Your task to perform on an android device: turn on airplane mode Image 0: 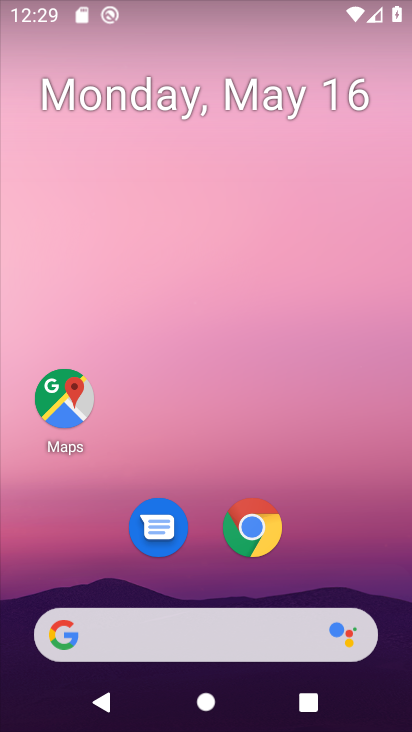
Step 0: drag from (174, 444) to (236, 47)
Your task to perform on an android device: turn on airplane mode Image 1: 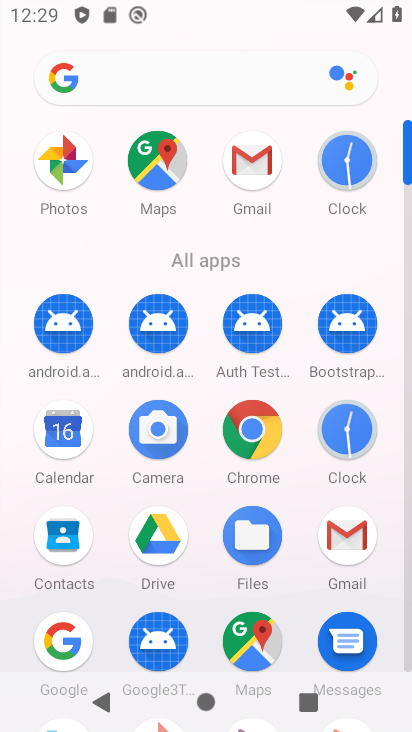
Step 1: drag from (299, 619) to (308, 279)
Your task to perform on an android device: turn on airplane mode Image 2: 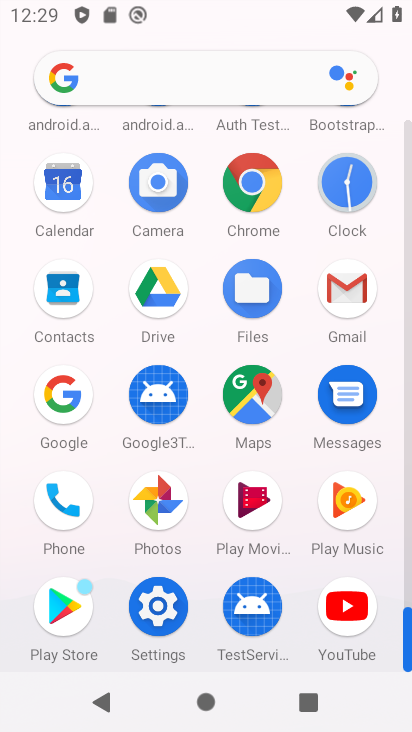
Step 2: click (154, 606)
Your task to perform on an android device: turn on airplane mode Image 3: 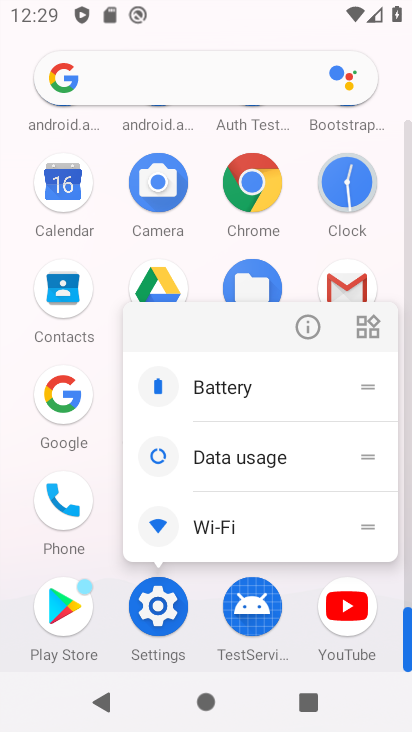
Step 3: click (152, 612)
Your task to perform on an android device: turn on airplane mode Image 4: 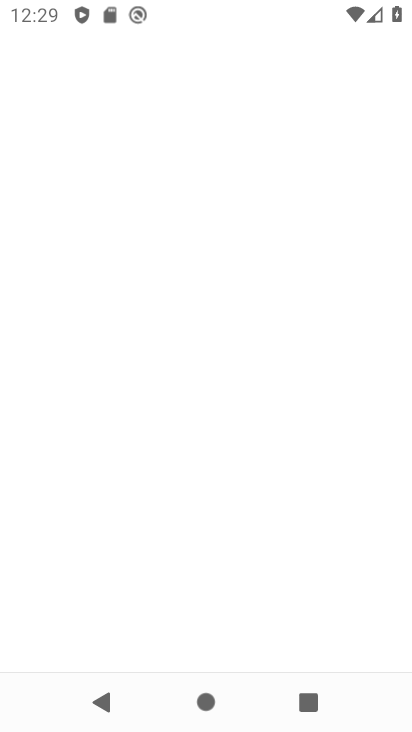
Step 4: click (154, 599)
Your task to perform on an android device: turn on airplane mode Image 5: 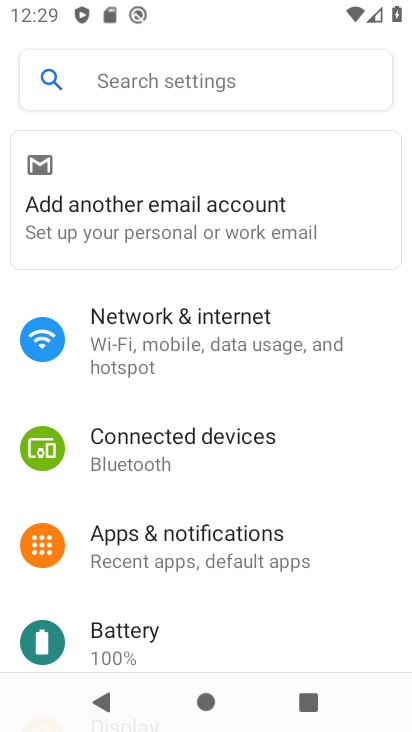
Step 5: click (230, 335)
Your task to perform on an android device: turn on airplane mode Image 6: 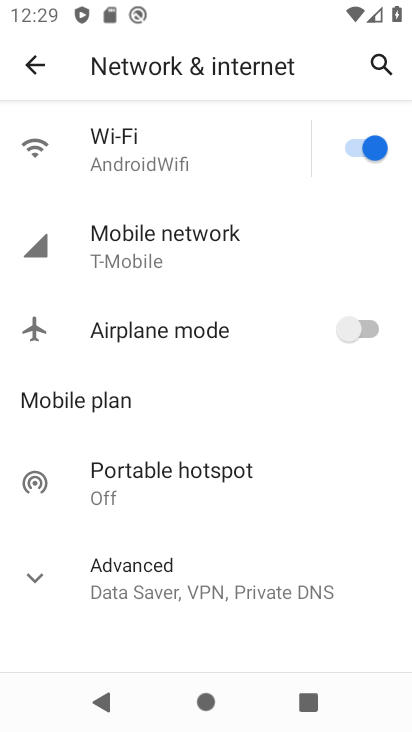
Step 6: click (182, 325)
Your task to perform on an android device: turn on airplane mode Image 7: 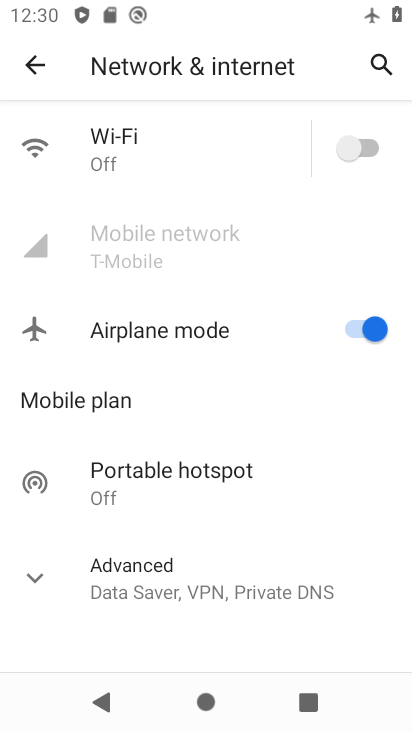
Step 7: task complete